Your task to perform on an android device: What is the recent news? Image 0: 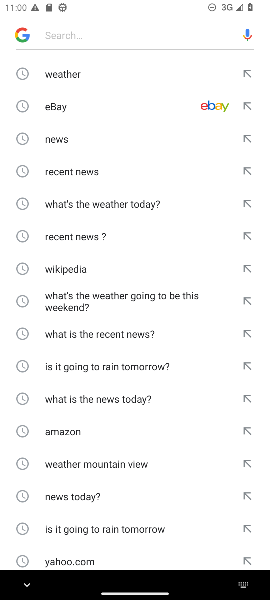
Step 0: press home button
Your task to perform on an android device: What is the recent news? Image 1: 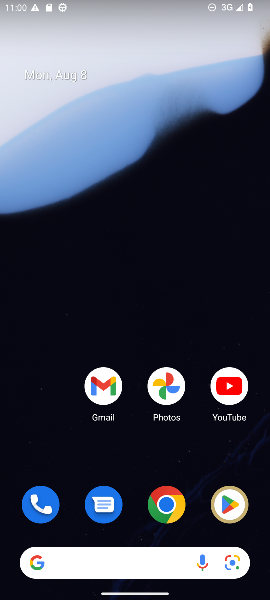
Step 1: drag from (123, 443) to (161, 164)
Your task to perform on an android device: What is the recent news? Image 2: 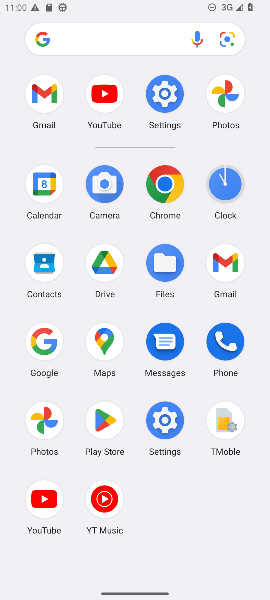
Step 2: click (40, 339)
Your task to perform on an android device: What is the recent news? Image 3: 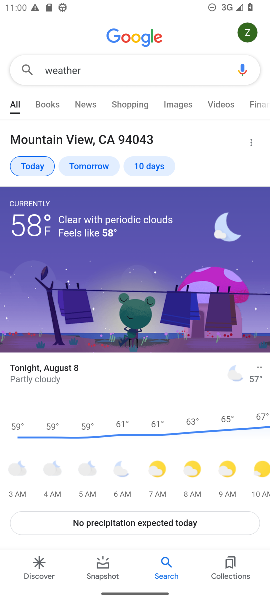
Step 3: click (113, 73)
Your task to perform on an android device: What is the recent news? Image 4: 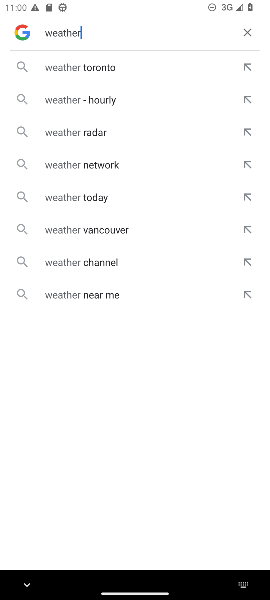
Step 4: click (242, 30)
Your task to perform on an android device: What is the recent news? Image 5: 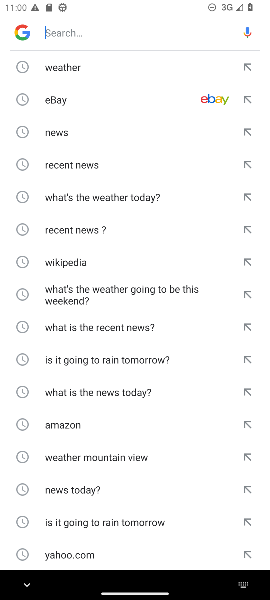
Step 5: type "recent news"
Your task to perform on an android device: What is the recent news? Image 6: 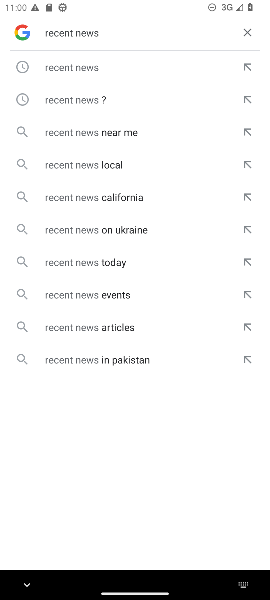
Step 6: click (104, 70)
Your task to perform on an android device: What is the recent news? Image 7: 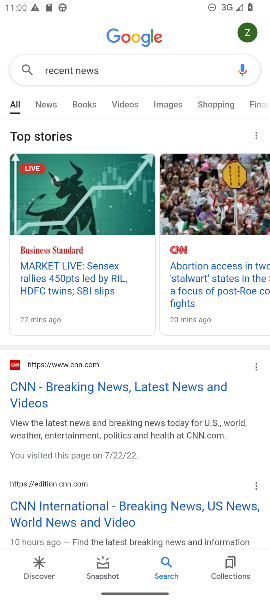
Step 7: task complete